Your task to perform on an android device: show emergency info Image 0: 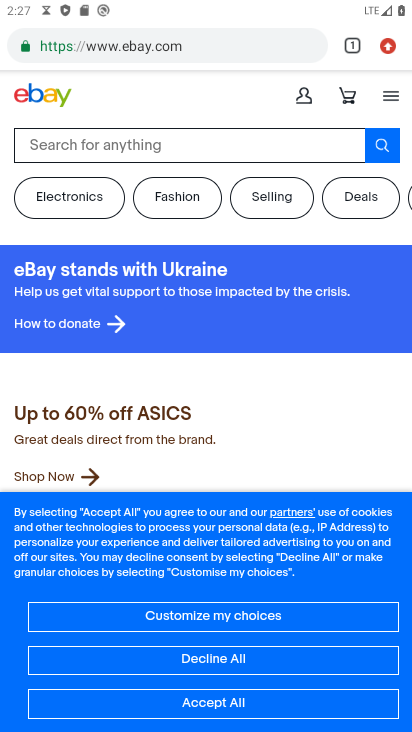
Step 0: press home button
Your task to perform on an android device: show emergency info Image 1: 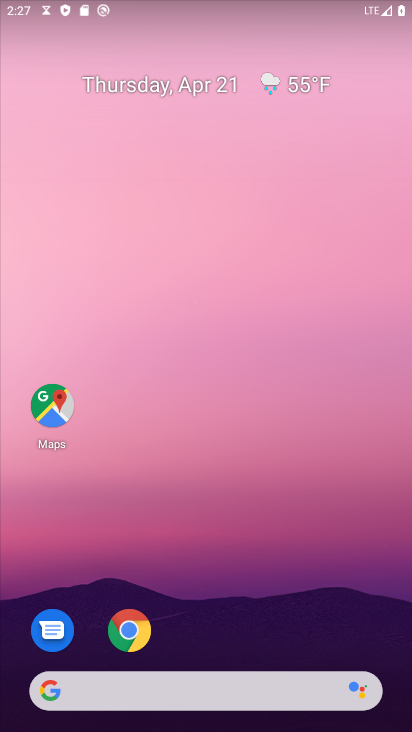
Step 1: drag from (358, 584) to (348, 17)
Your task to perform on an android device: show emergency info Image 2: 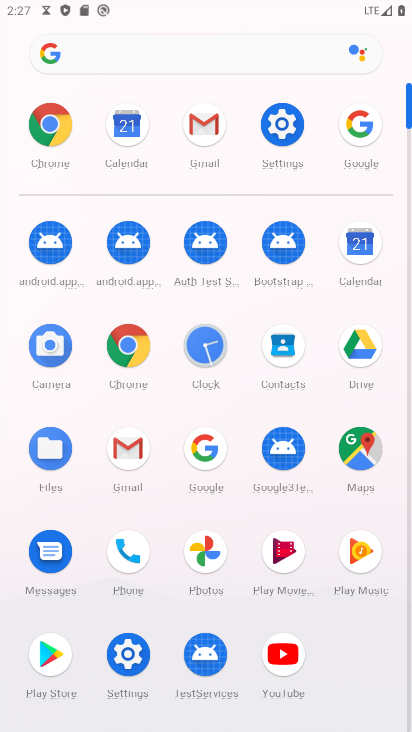
Step 2: click (282, 131)
Your task to perform on an android device: show emergency info Image 3: 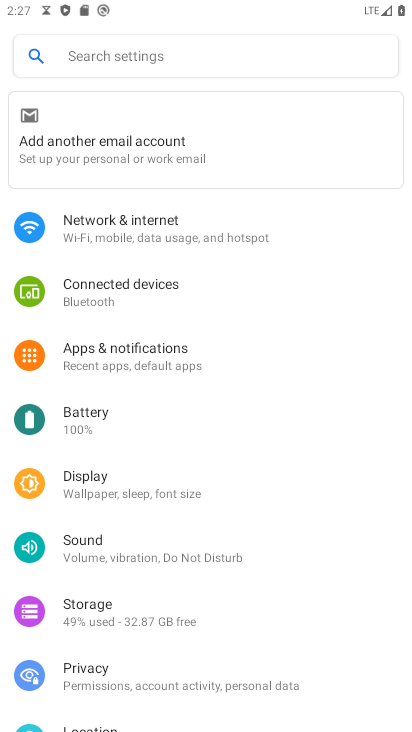
Step 3: drag from (328, 663) to (336, 195)
Your task to perform on an android device: show emergency info Image 4: 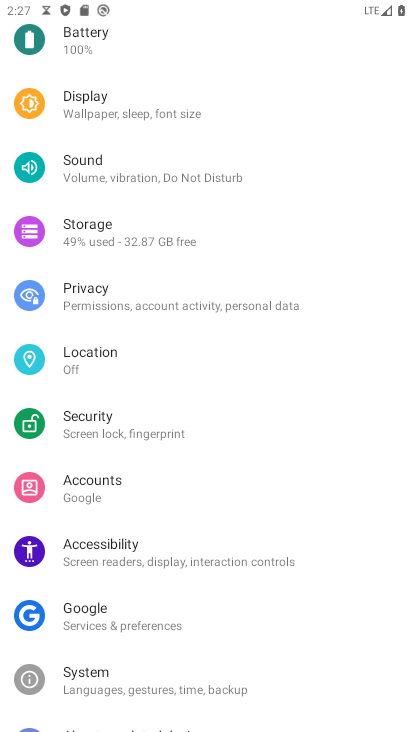
Step 4: drag from (312, 501) to (322, 198)
Your task to perform on an android device: show emergency info Image 5: 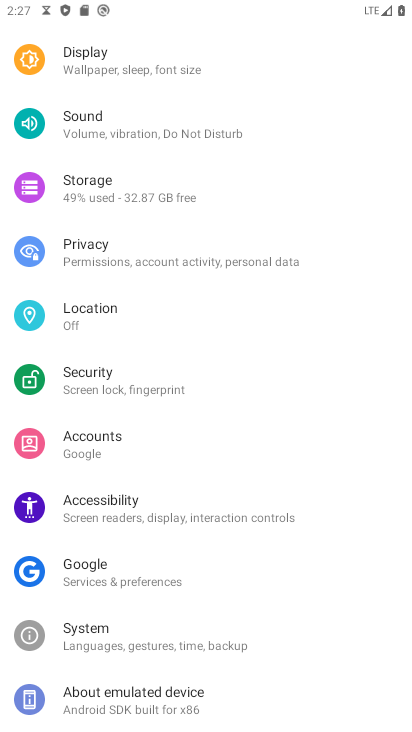
Step 5: click (127, 713)
Your task to perform on an android device: show emergency info Image 6: 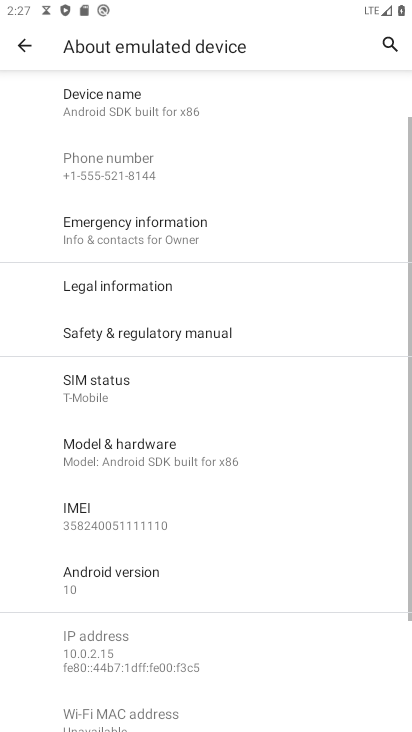
Step 6: click (103, 228)
Your task to perform on an android device: show emergency info Image 7: 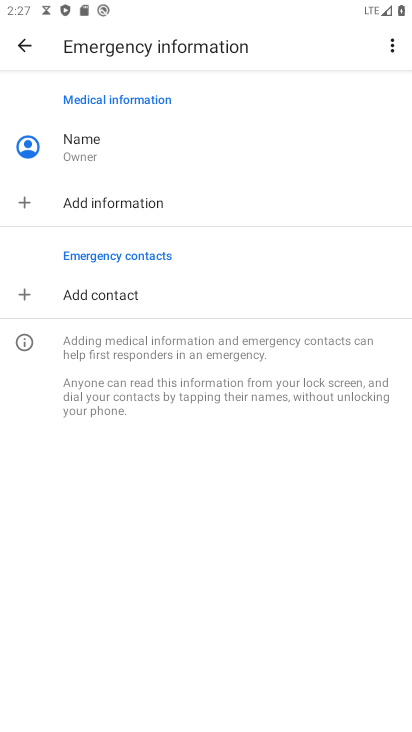
Step 7: task complete